Your task to perform on an android device: Go to display settings Image 0: 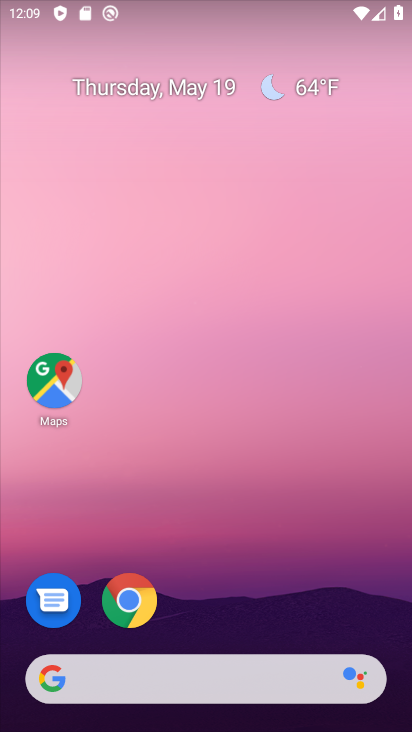
Step 0: drag from (200, 639) to (146, 93)
Your task to perform on an android device: Go to display settings Image 1: 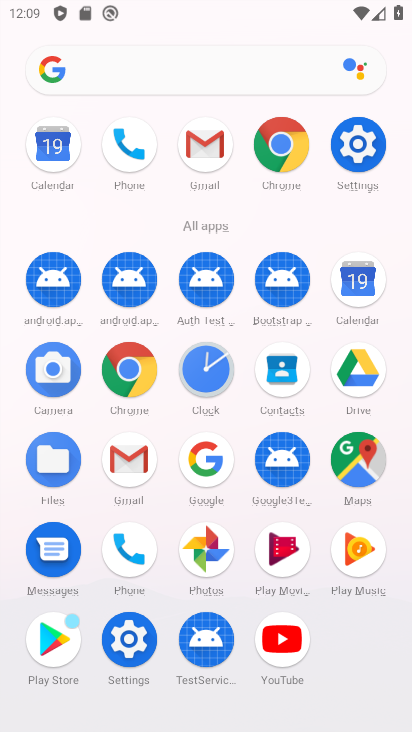
Step 1: click (348, 143)
Your task to perform on an android device: Go to display settings Image 2: 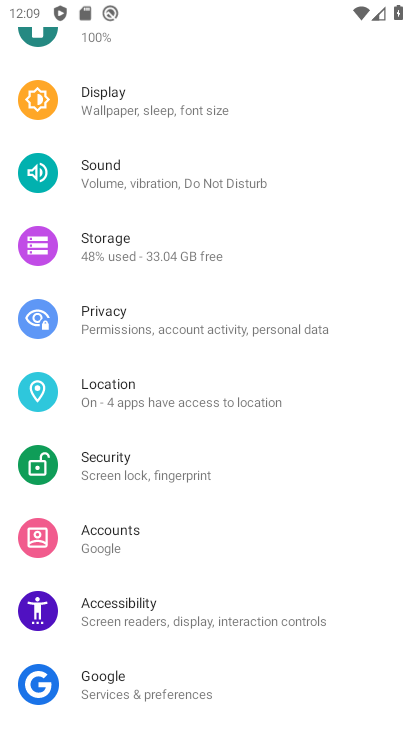
Step 2: click (118, 93)
Your task to perform on an android device: Go to display settings Image 3: 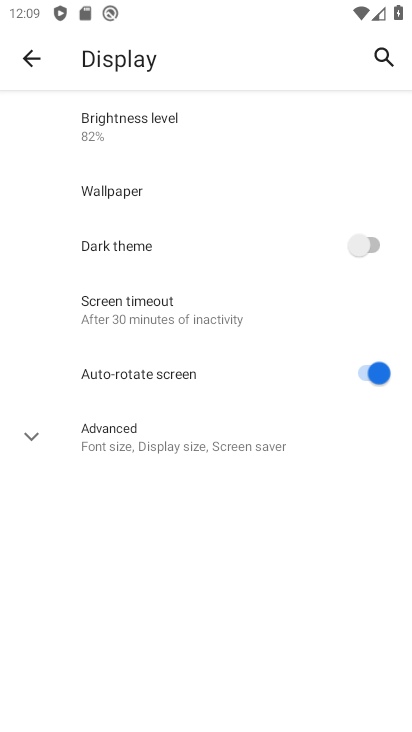
Step 3: click (181, 439)
Your task to perform on an android device: Go to display settings Image 4: 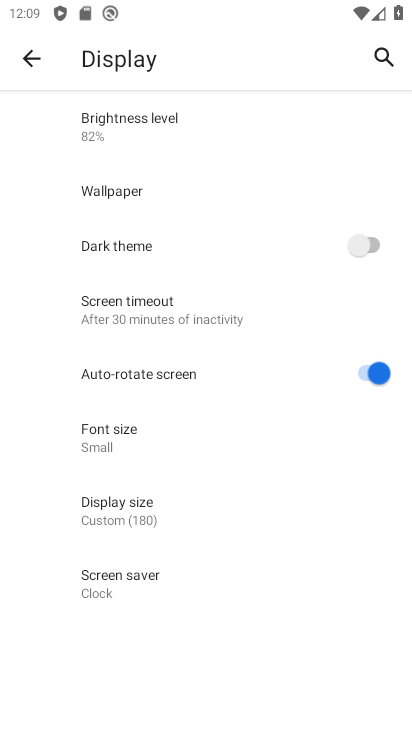
Step 4: task complete